Your task to perform on an android device: Open settings on Google Maps Image 0: 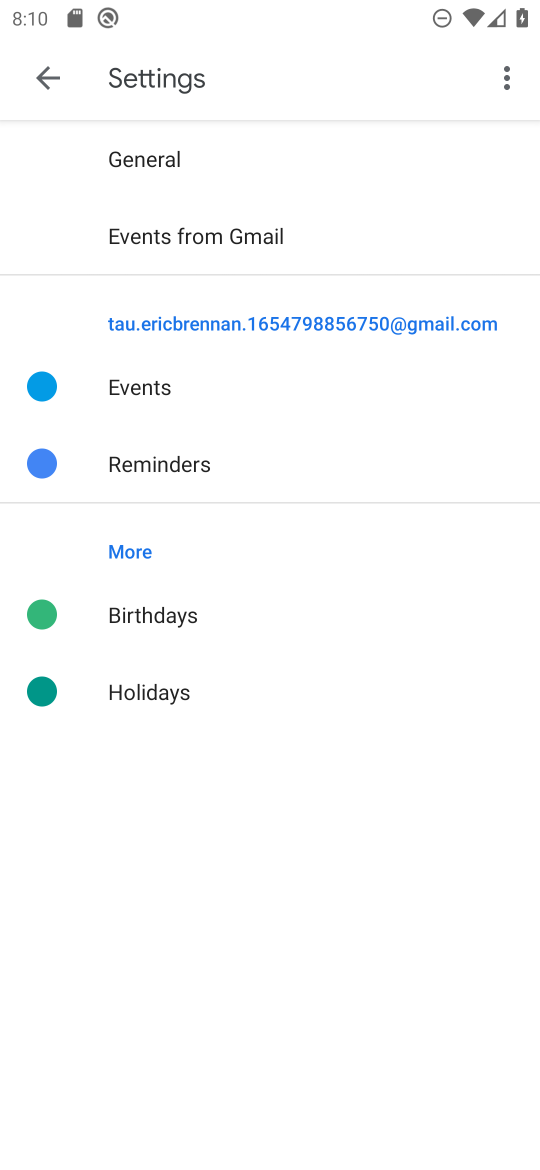
Step 0: press home button
Your task to perform on an android device: Open settings on Google Maps Image 1: 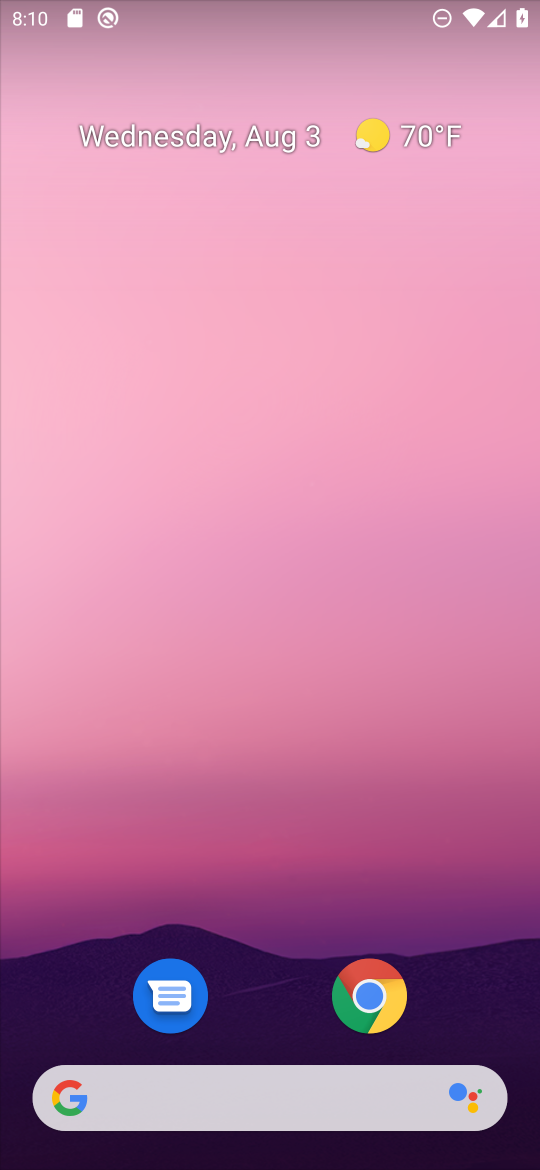
Step 1: drag from (283, 941) to (265, 31)
Your task to perform on an android device: Open settings on Google Maps Image 2: 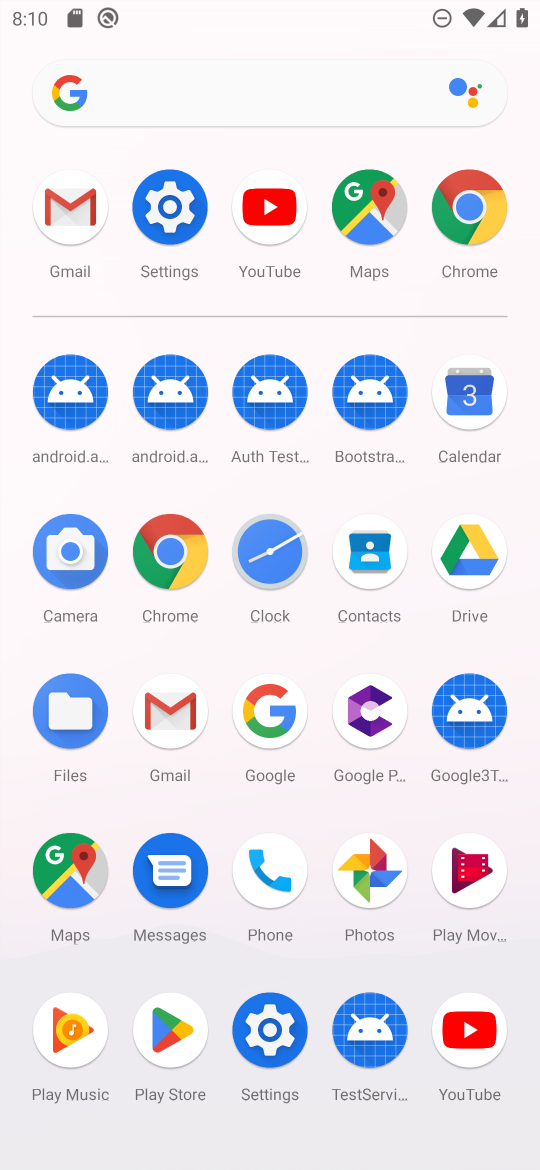
Step 2: click (82, 881)
Your task to perform on an android device: Open settings on Google Maps Image 3: 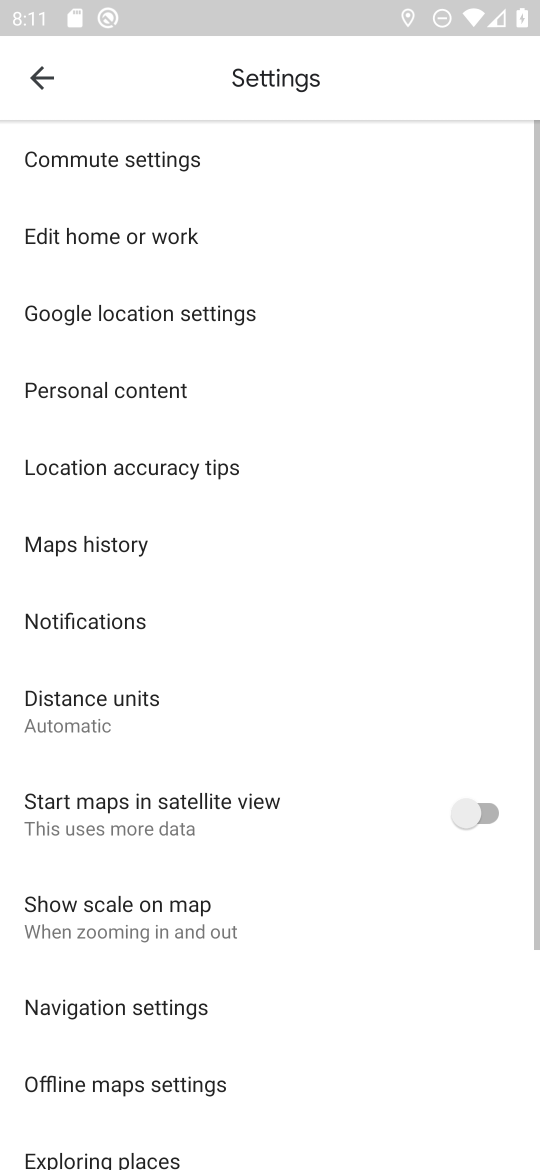
Step 3: task complete